Your task to perform on an android device: turn off picture-in-picture Image 0: 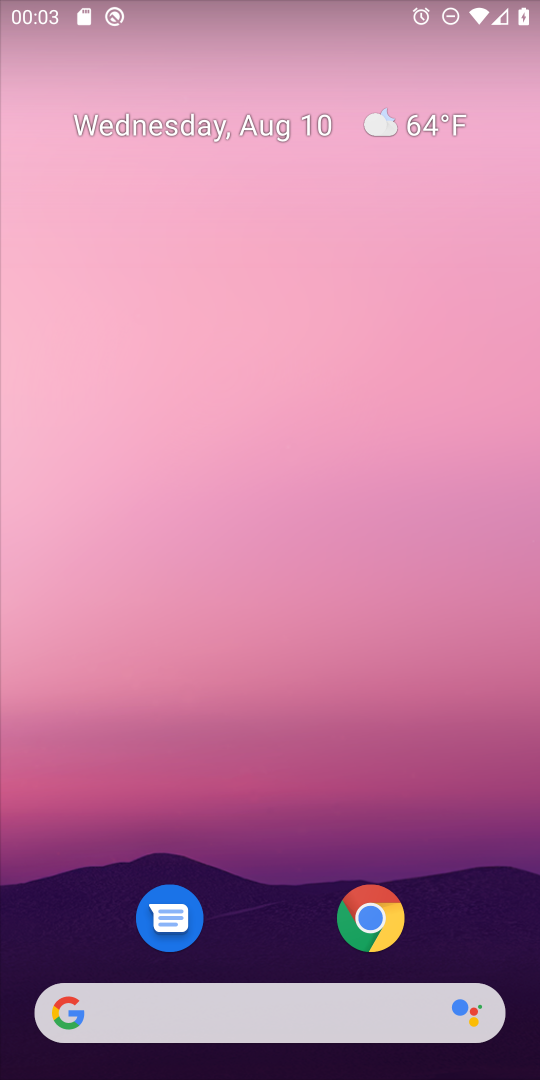
Step 0: click (382, 911)
Your task to perform on an android device: turn off picture-in-picture Image 1: 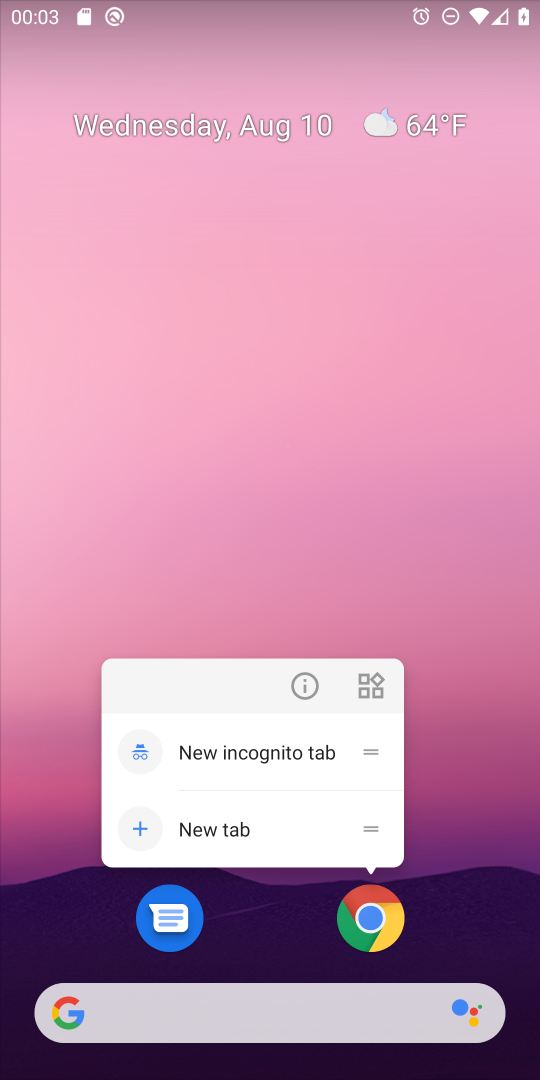
Step 1: click (303, 698)
Your task to perform on an android device: turn off picture-in-picture Image 2: 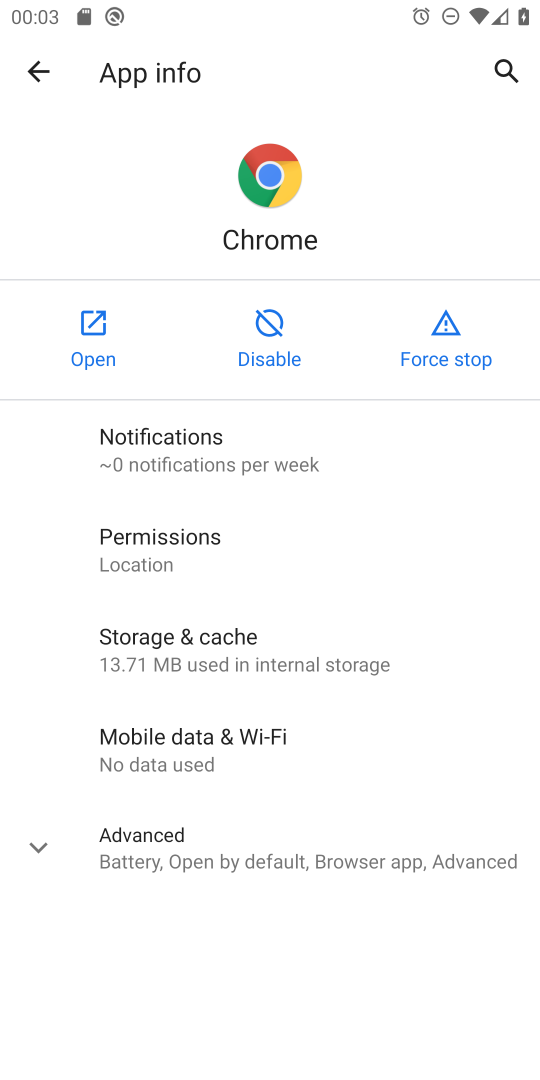
Step 2: click (146, 847)
Your task to perform on an android device: turn off picture-in-picture Image 3: 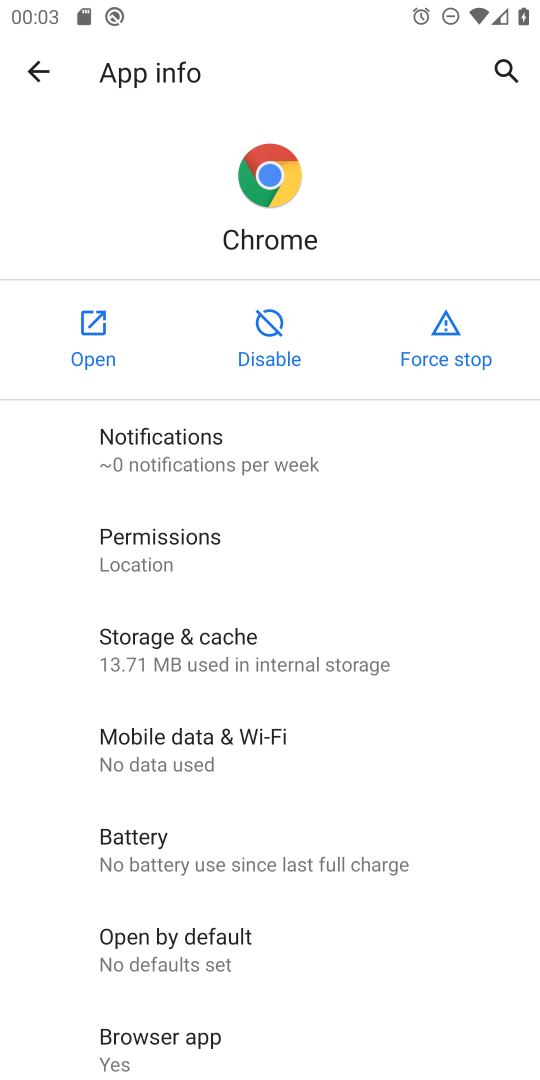
Step 3: drag from (299, 962) to (357, 222)
Your task to perform on an android device: turn off picture-in-picture Image 4: 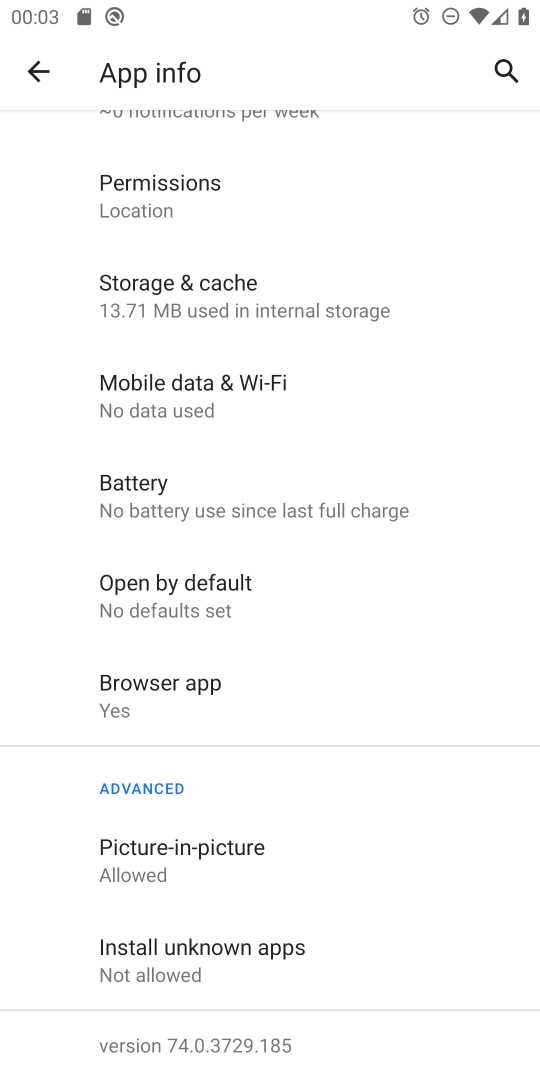
Step 4: click (188, 849)
Your task to perform on an android device: turn off picture-in-picture Image 5: 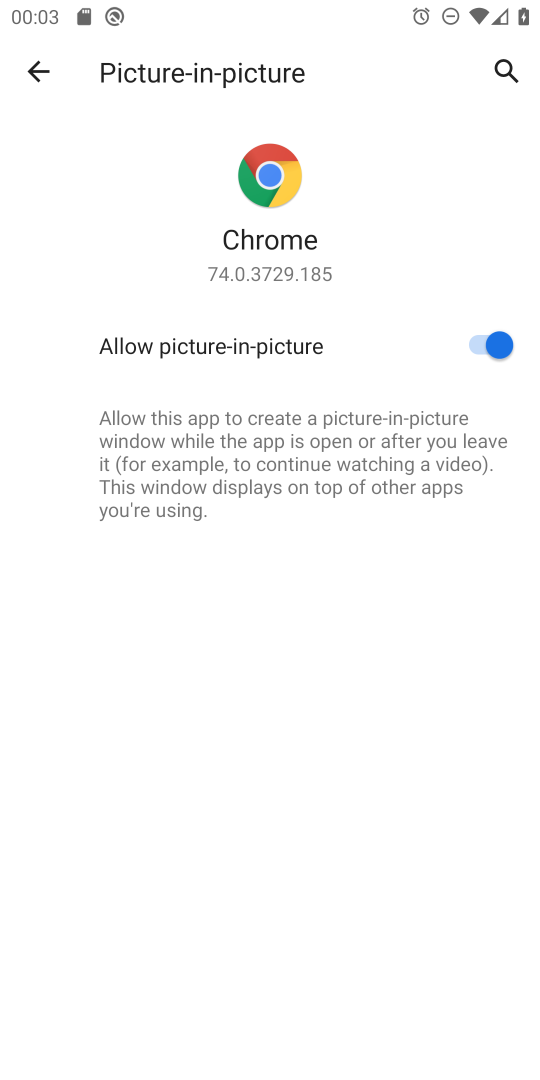
Step 5: click (486, 347)
Your task to perform on an android device: turn off picture-in-picture Image 6: 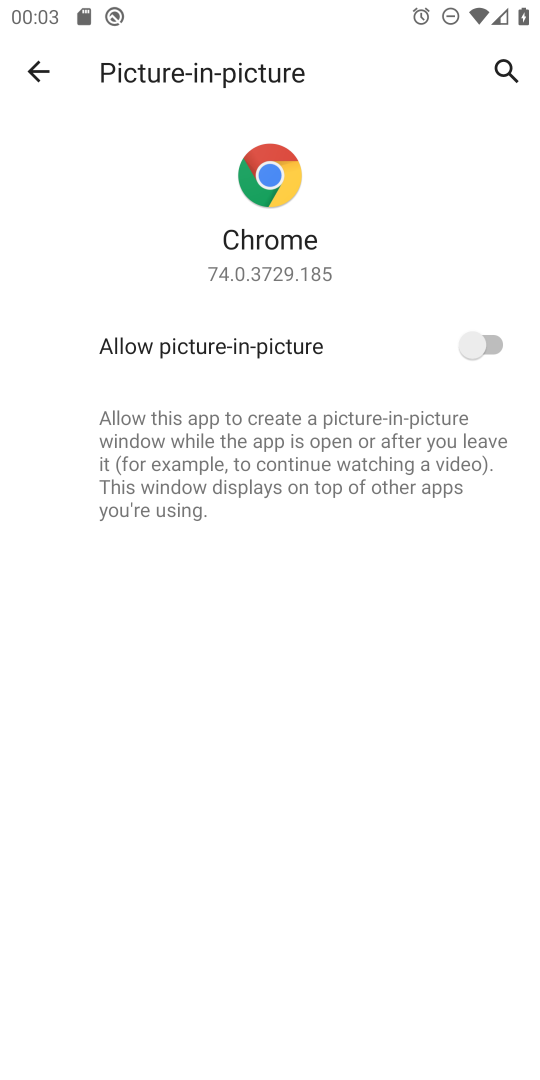
Step 6: task complete